Your task to perform on an android device: Go to CNN.com Image 0: 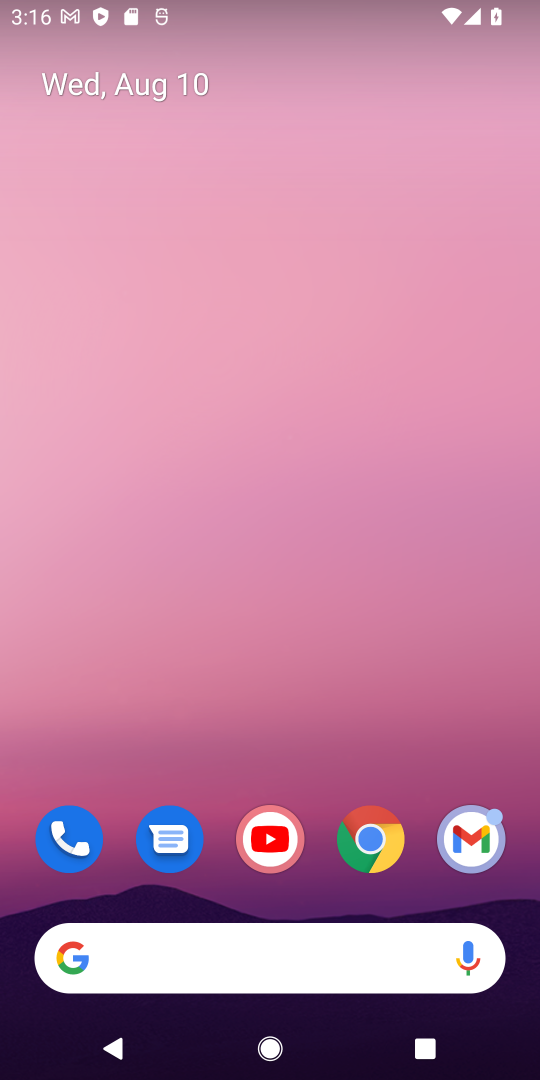
Step 0: click (368, 841)
Your task to perform on an android device: Go to CNN.com Image 1: 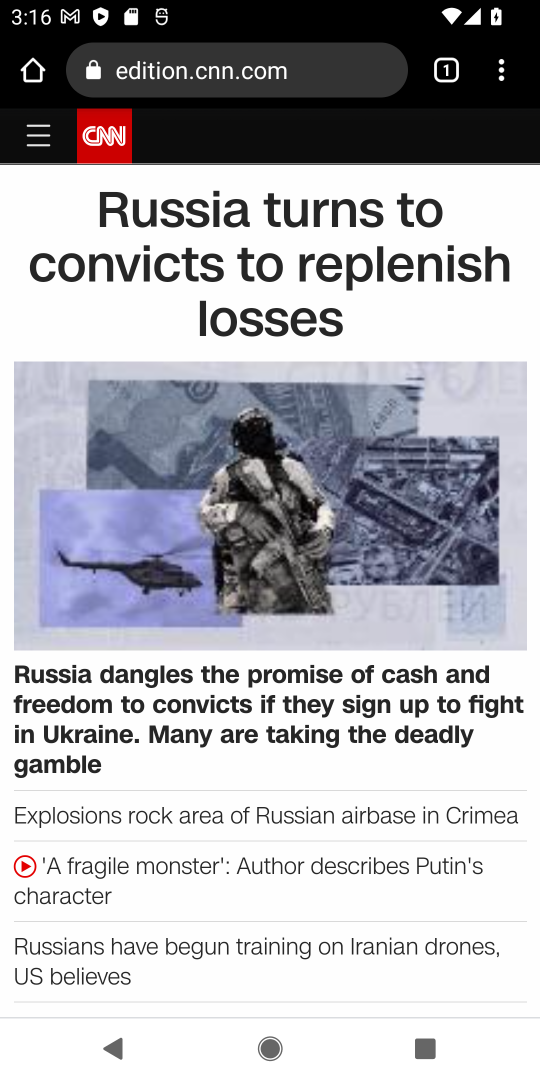
Step 1: task complete